Your task to perform on an android device: check google app version Image 0: 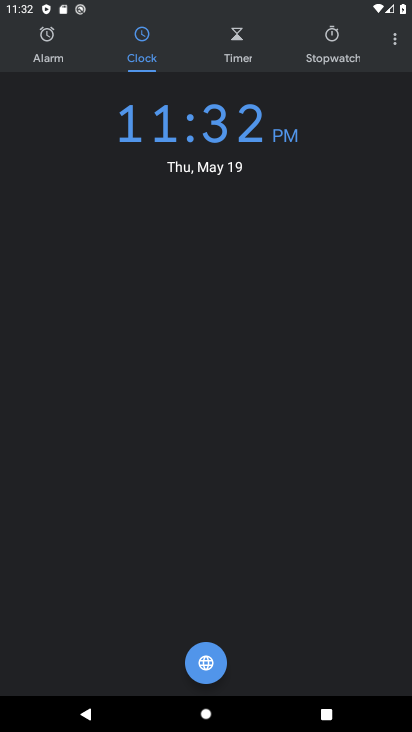
Step 0: press home button
Your task to perform on an android device: check google app version Image 1: 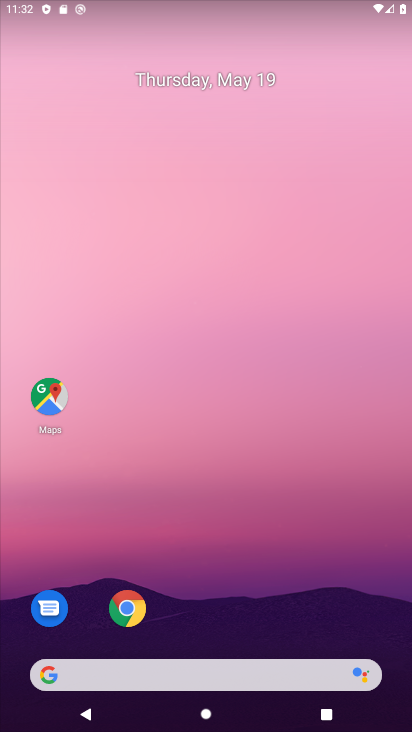
Step 1: drag from (370, 629) to (376, 46)
Your task to perform on an android device: check google app version Image 2: 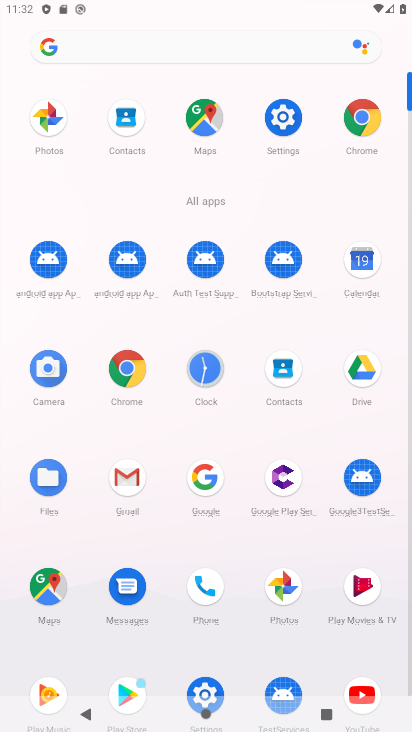
Step 2: click (200, 494)
Your task to perform on an android device: check google app version Image 3: 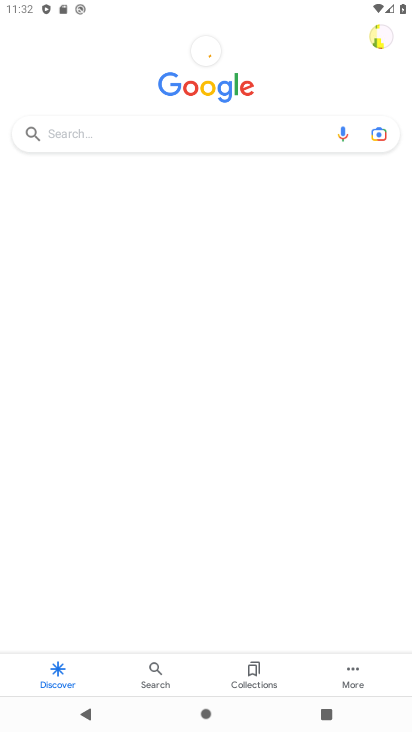
Step 3: click (356, 675)
Your task to perform on an android device: check google app version Image 4: 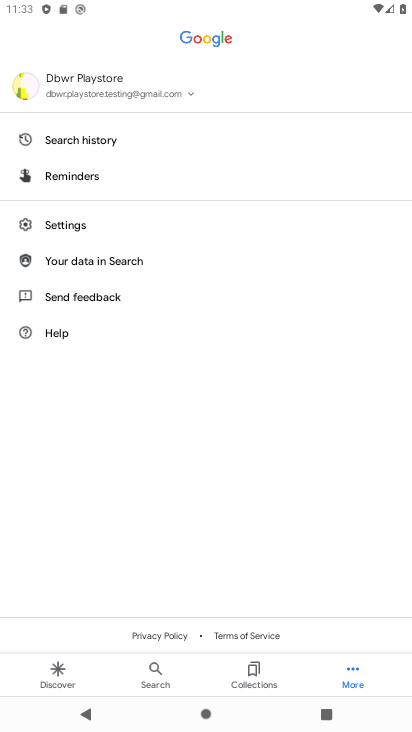
Step 4: click (99, 231)
Your task to perform on an android device: check google app version Image 5: 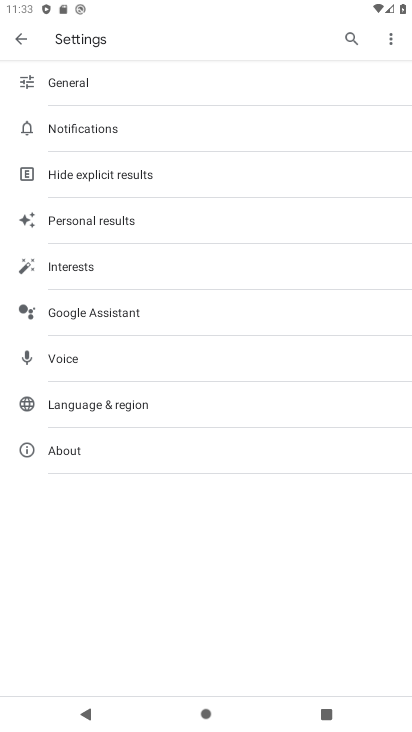
Step 5: click (101, 455)
Your task to perform on an android device: check google app version Image 6: 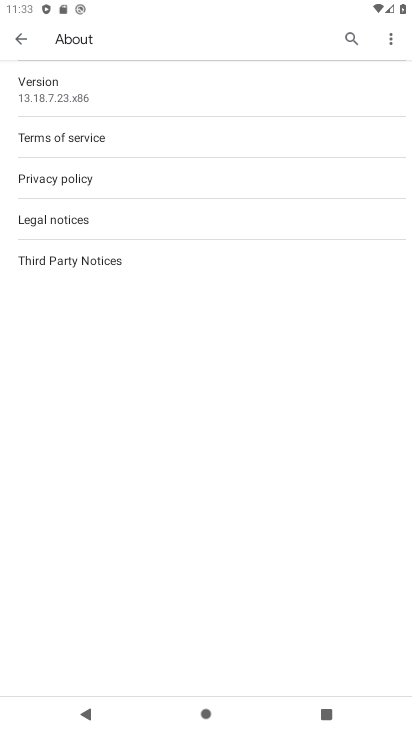
Step 6: task complete